Your task to perform on an android device: What's the weather today? Image 0: 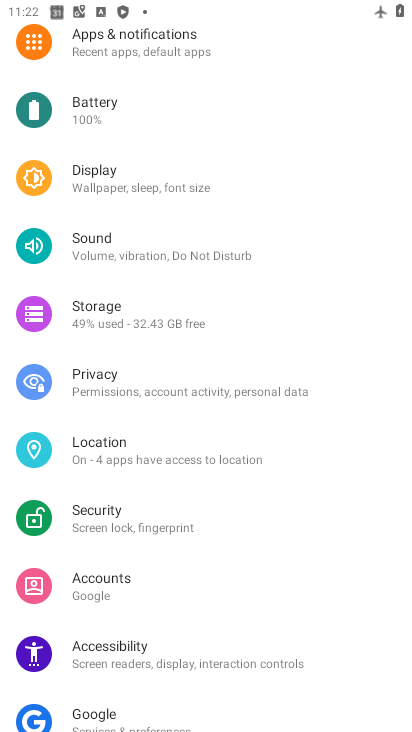
Step 0: press home button
Your task to perform on an android device: What's the weather today? Image 1: 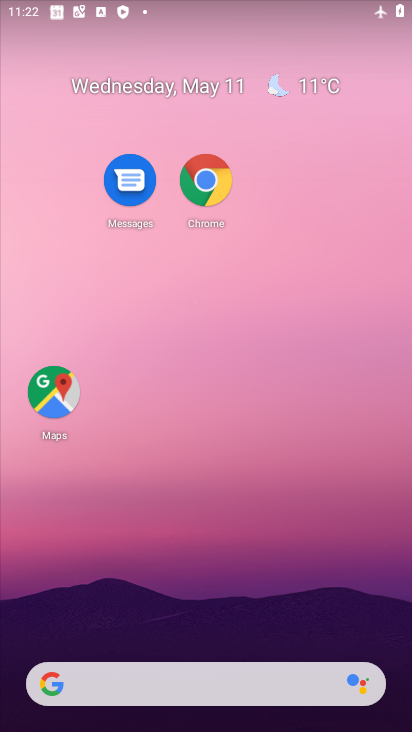
Step 1: click (333, 97)
Your task to perform on an android device: What's the weather today? Image 2: 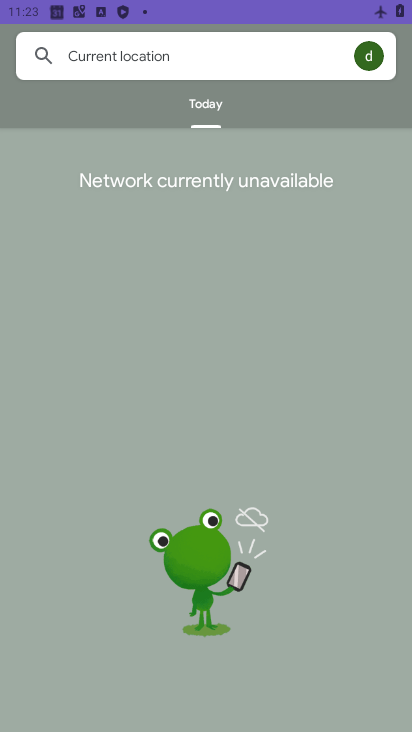
Step 2: task complete